Your task to perform on an android device: turn off location Image 0: 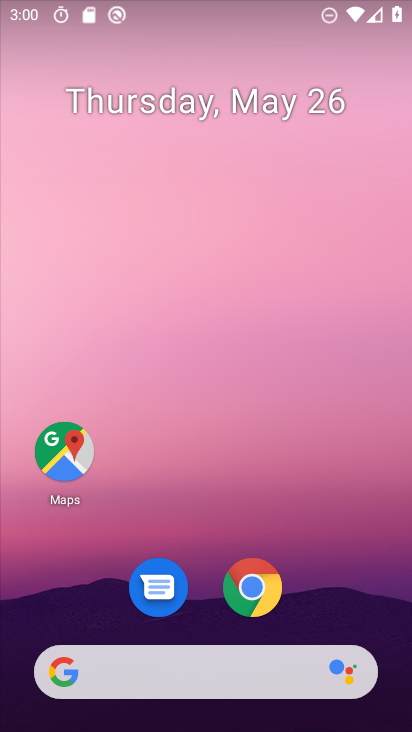
Step 0: drag from (344, 577) to (307, 167)
Your task to perform on an android device: turn off location Image 1: 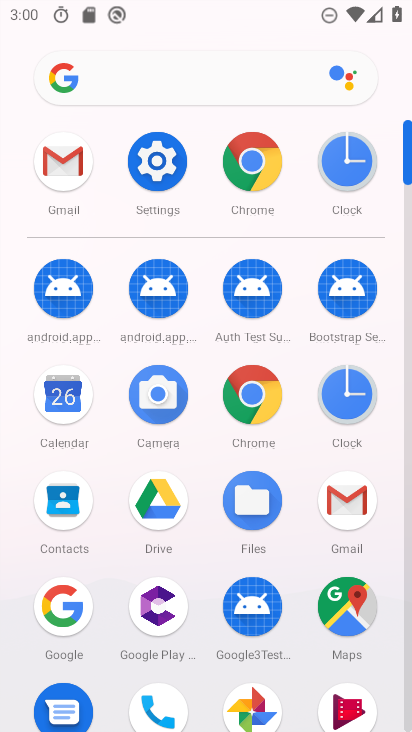
Step 1: click (157, 161)
Your task to perform on an android device: turn off location Image 2: 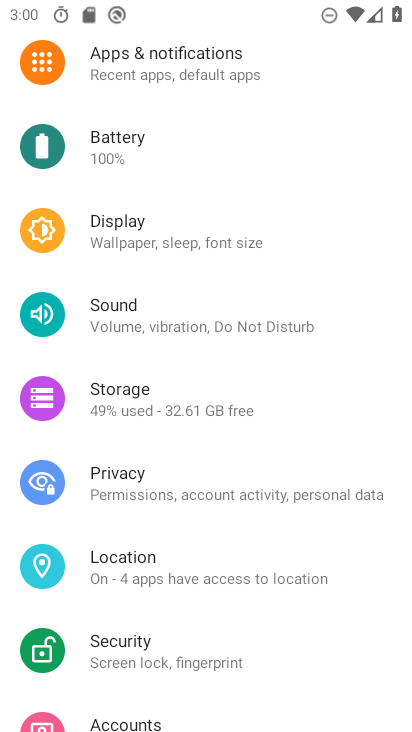
Step 2: click (190, 564)
Your task to perform on an android device: turn off location Image 3: 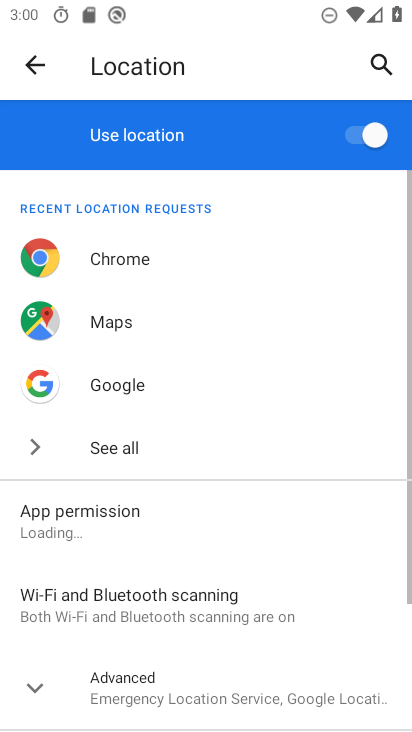
Step 3: click (344, 127)
Your task to perform on an android device: turn off location Image 4: 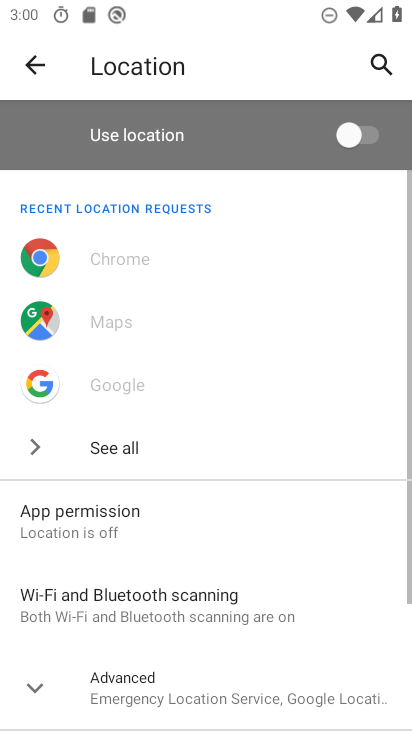
Step 4: task complete